Your task to perform on an android device: Open calendar and show me the second week of next month Image 0: 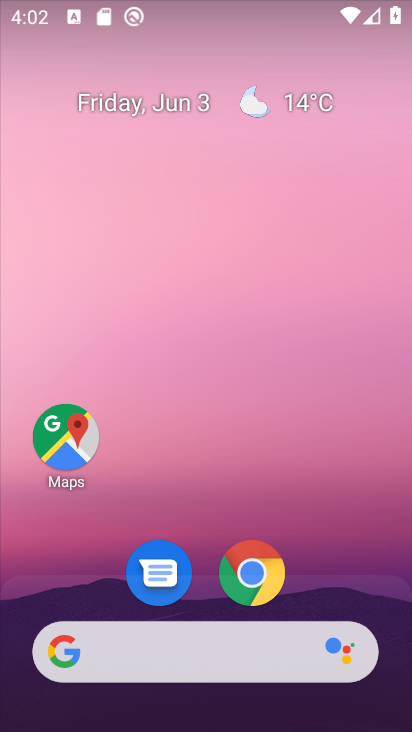
Step 0: drag from (240, 682) to (270, 11)
Your task to perform on an android device: Open calendar and show me the second week of next month Image 1: 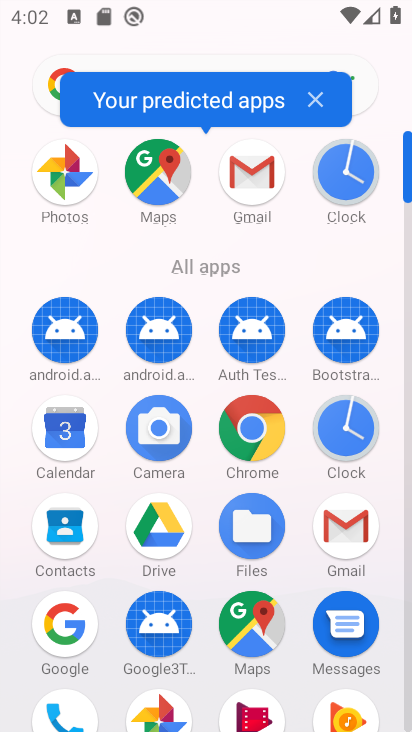
Step 1: click (76, 445)
Your task to perform on an android device: Open calendar and show me the second week of next month Image 2: 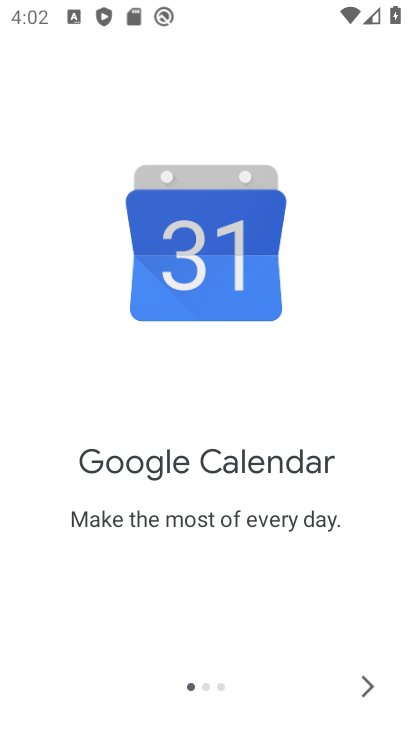
Step 2: click (351, 678)
Your task to perform on an android device: Open calendar and show me the second week of next month Image 3: 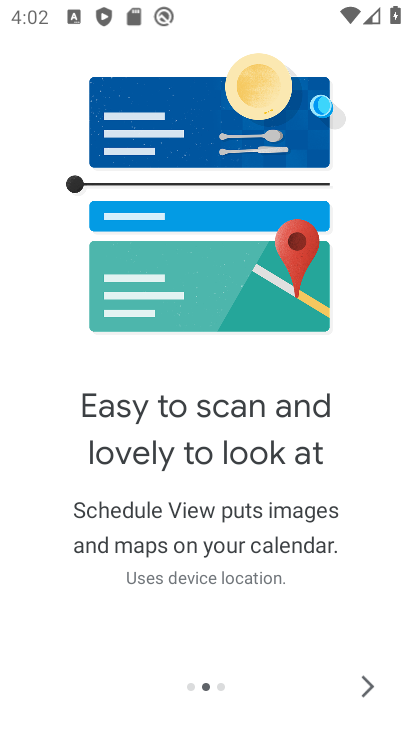
Step 3: click (372, 690)
Your task to perform on an android device: Open calendar and show me the second week of next month Image 4: 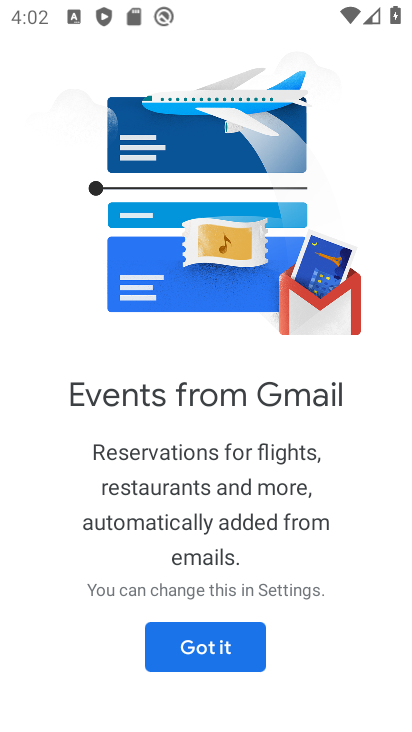
Step 4: click (210, 656)
Your task to perform on an android device: Open calendar and show me the second week of next month Image 5: 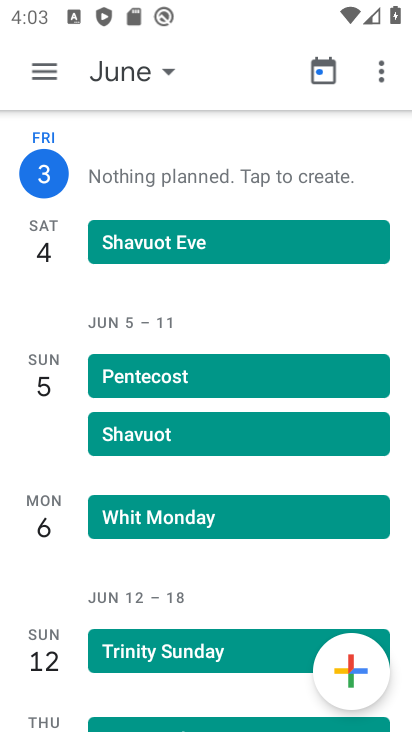
Step 5: click (165, 58)
Your task to perform on an android device: Open calendar and show me the second week of next month Image 6: 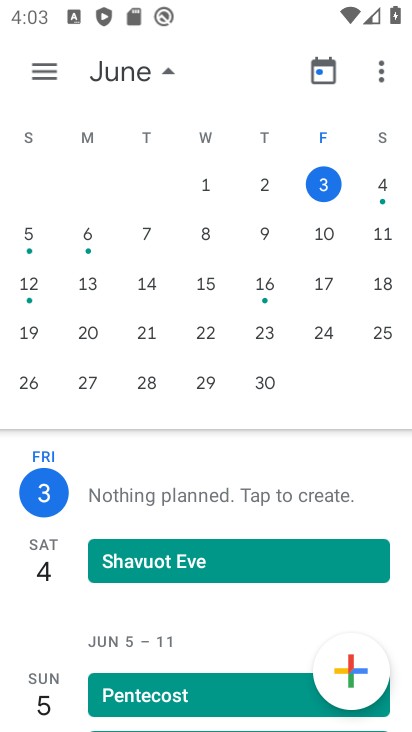
Step 6: click (215, 233)
Your task to perform on an android device: Open calendar and show me the second week of next month Image 7: 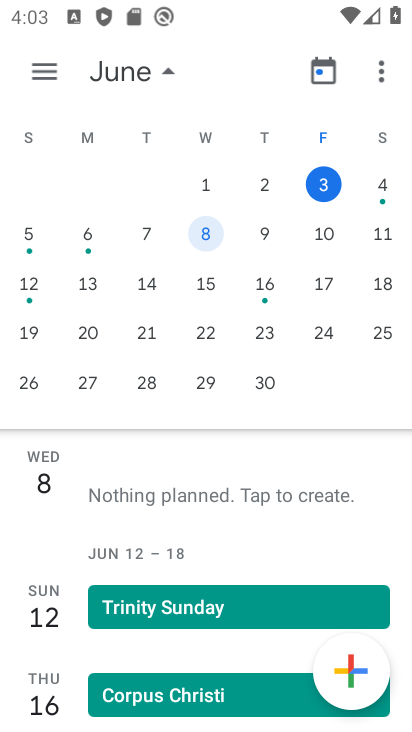
Step 7: click (52, 76)
Your task to perform on an android device: Open calendar and show me the second week of next month Image 8: 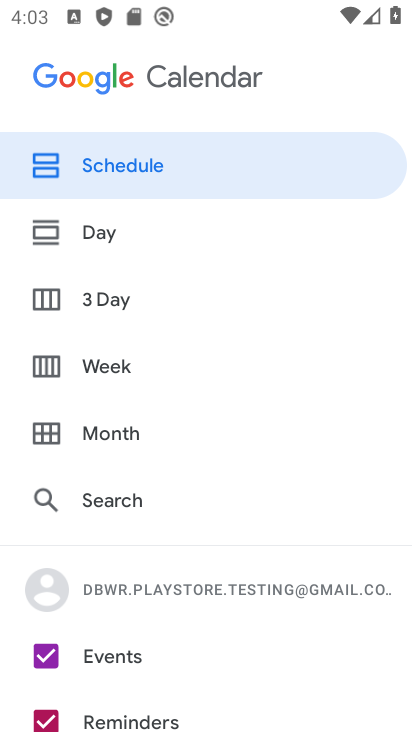
Step 8: click (119, 372)
Your task to perform on an android device: Open calendar and show me the second week of next month Image 9: 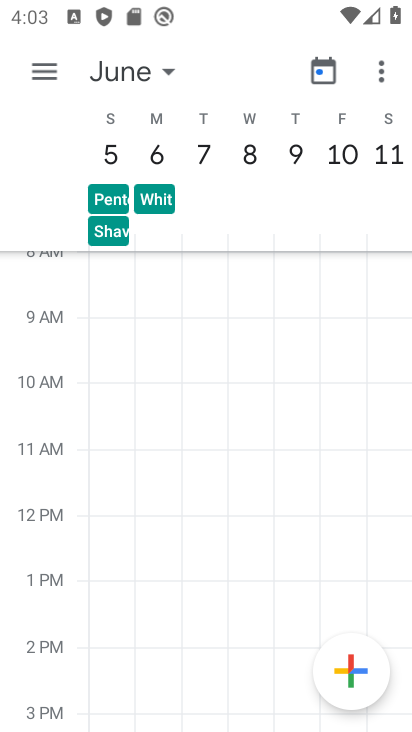
Step 9: task complete